Your task to perform on an android device: snooze an email in the gmail app Image 0: 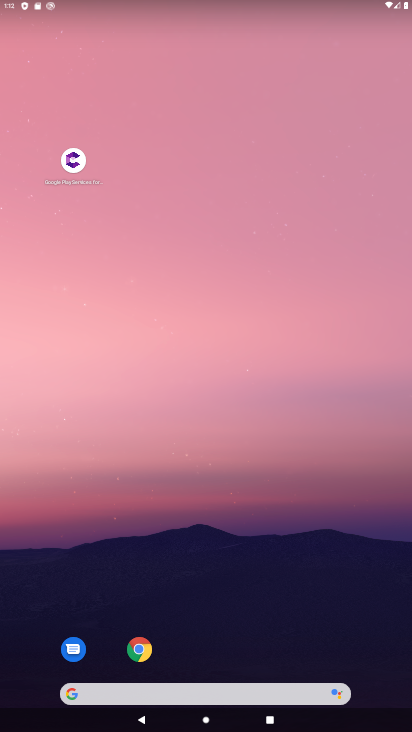
Step 0: drag from (321, 520) to (302, 196)
Your task to perform on an android device: snooze an email in the gmail app Image 1: 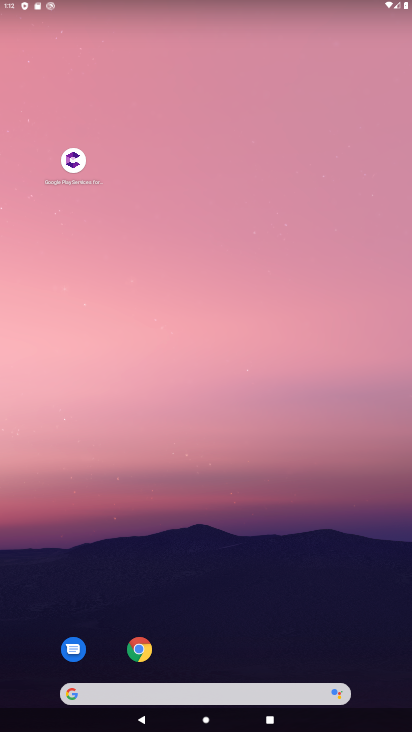
Step 1: drag from (298, 463) to (286, 74)
Your task to perform on an android device: snooze an email in the gmail app Image 2: 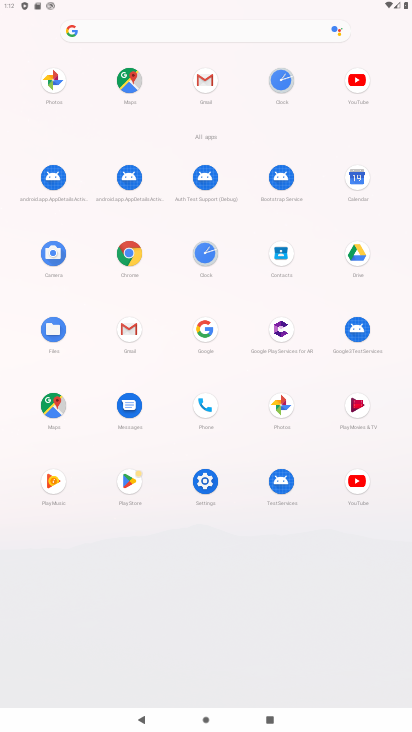
Step 2: click (129, 333)
Your task to perform on an android device: snooze an email in the gmail app Image 3: 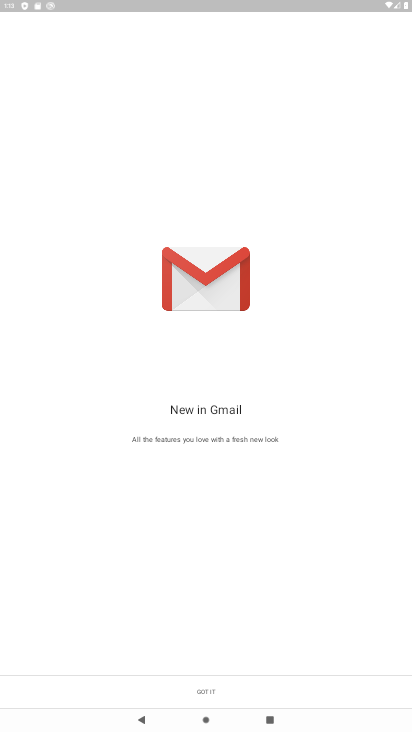
Step 3: click (208, 687)
Your task to perform on an android device: snooze an email in the gmail app Image 4: 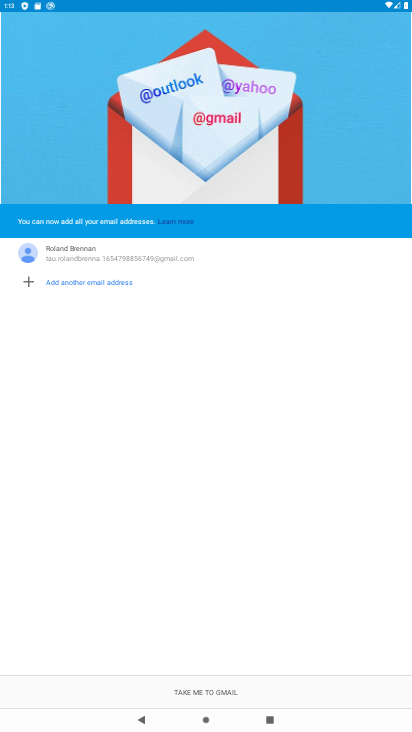
Step 4: click (216, 686)
Your task to perform on an android device: snooze an email in the gmail app Image 5: 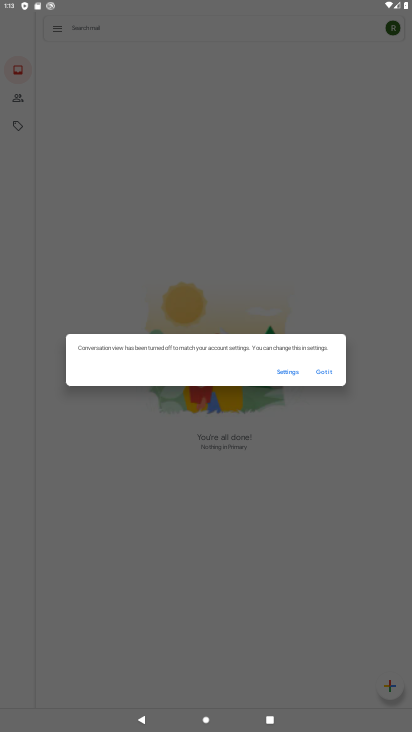
Step 5: click (323, 372)
Your task to perform on an android device: snooze an email in the gmail app Image 6: 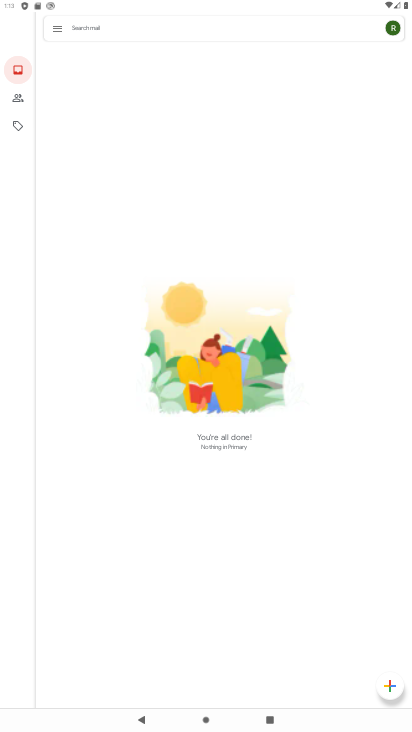
Step 6: click (56, 31)
Your task to perform on an android device: snooze an email in the gmail app Image 7: 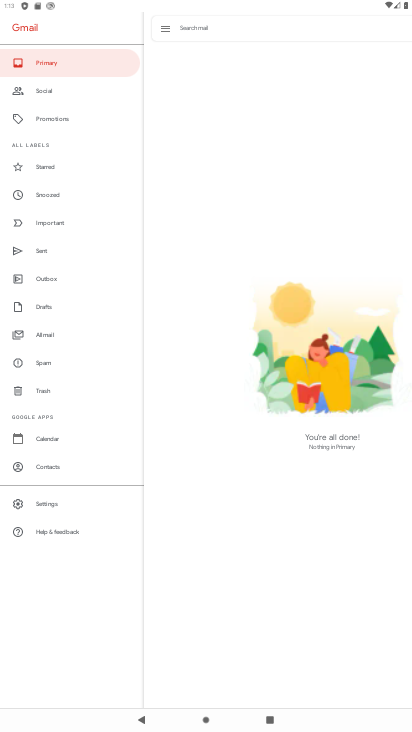
Step 7: click (50, 197)
Your task to perform on an android device: snooze an email in the gmail app Image 8: 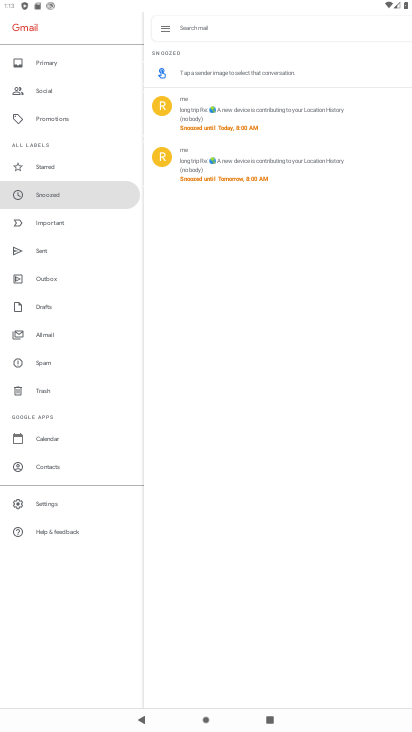
Step 8: task complete